Your task to perform on an android device: Show the shopping cart on newegg.com. Search for logitech g933 on newegg.com, select the first entry, add it to the cart, then select checkout. Image 0: 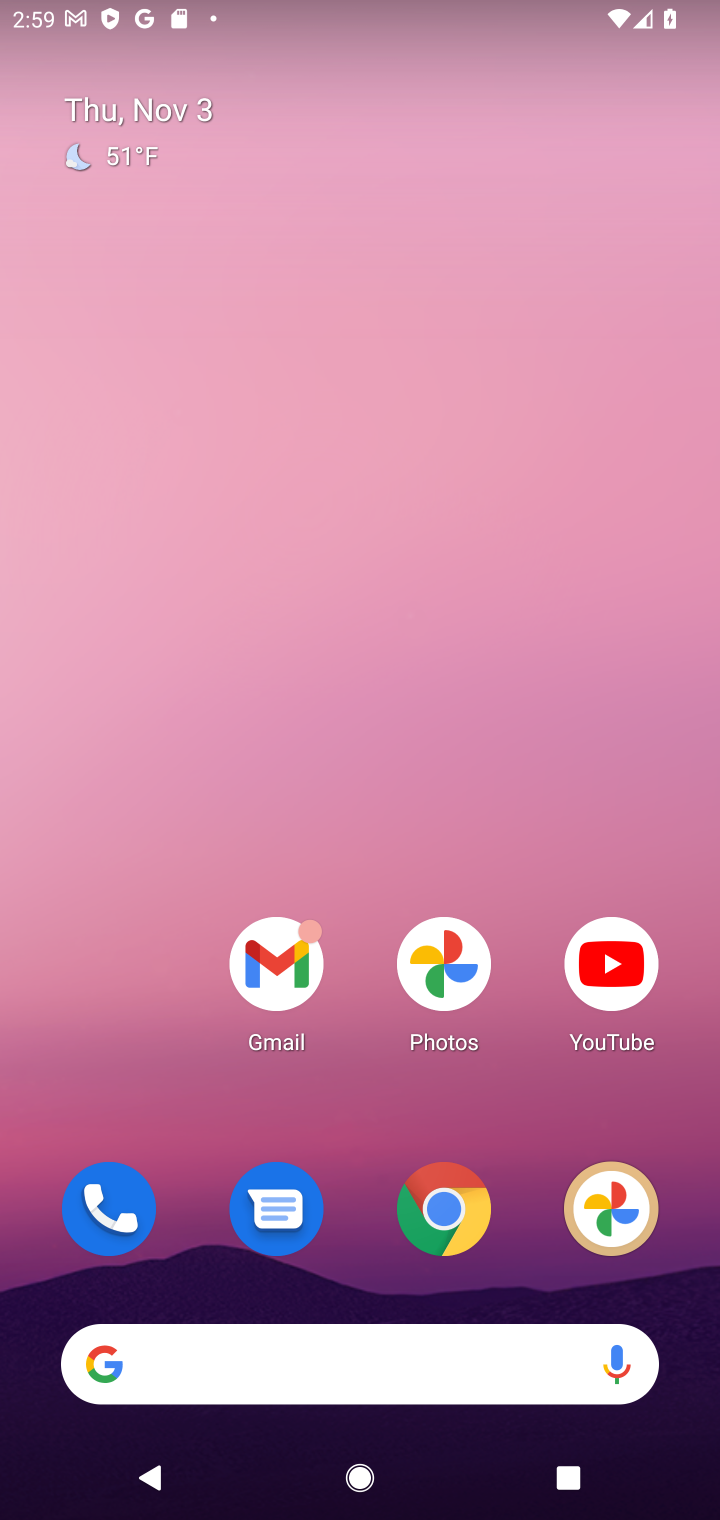
Step 0: click (476, 1190)
Your task to perform on an android device: Show the shopping cart on newegg.com. Search for logitech g933 on newegg.com, select the first entry, add it to the cart, then select checkout. Image 1: 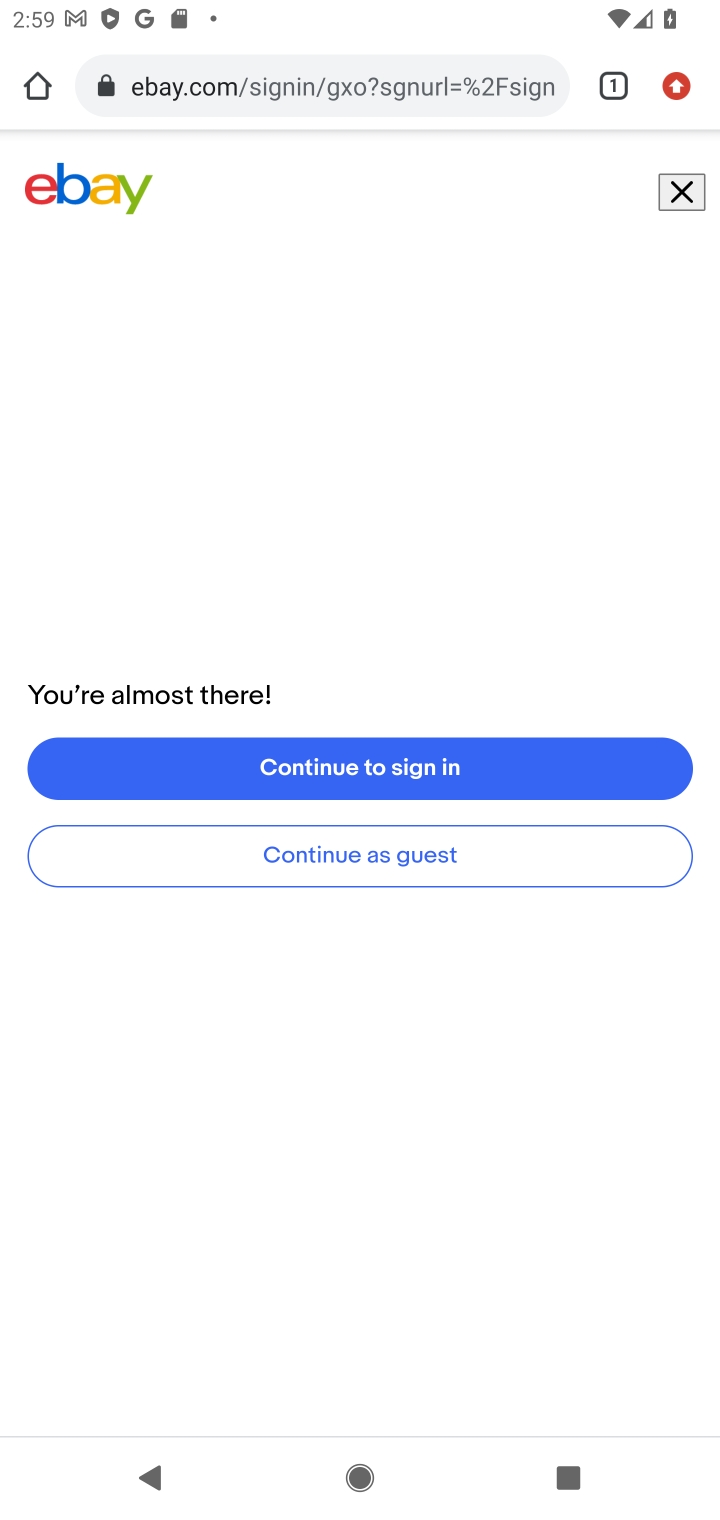
Step 1: click (288, 96)
Your task to perform on an android device: Show the shopping cart on newegg.com. Search for logitech g933 on newegg.com, select the first entry, add it to the cart, then select checkout. Image 2: 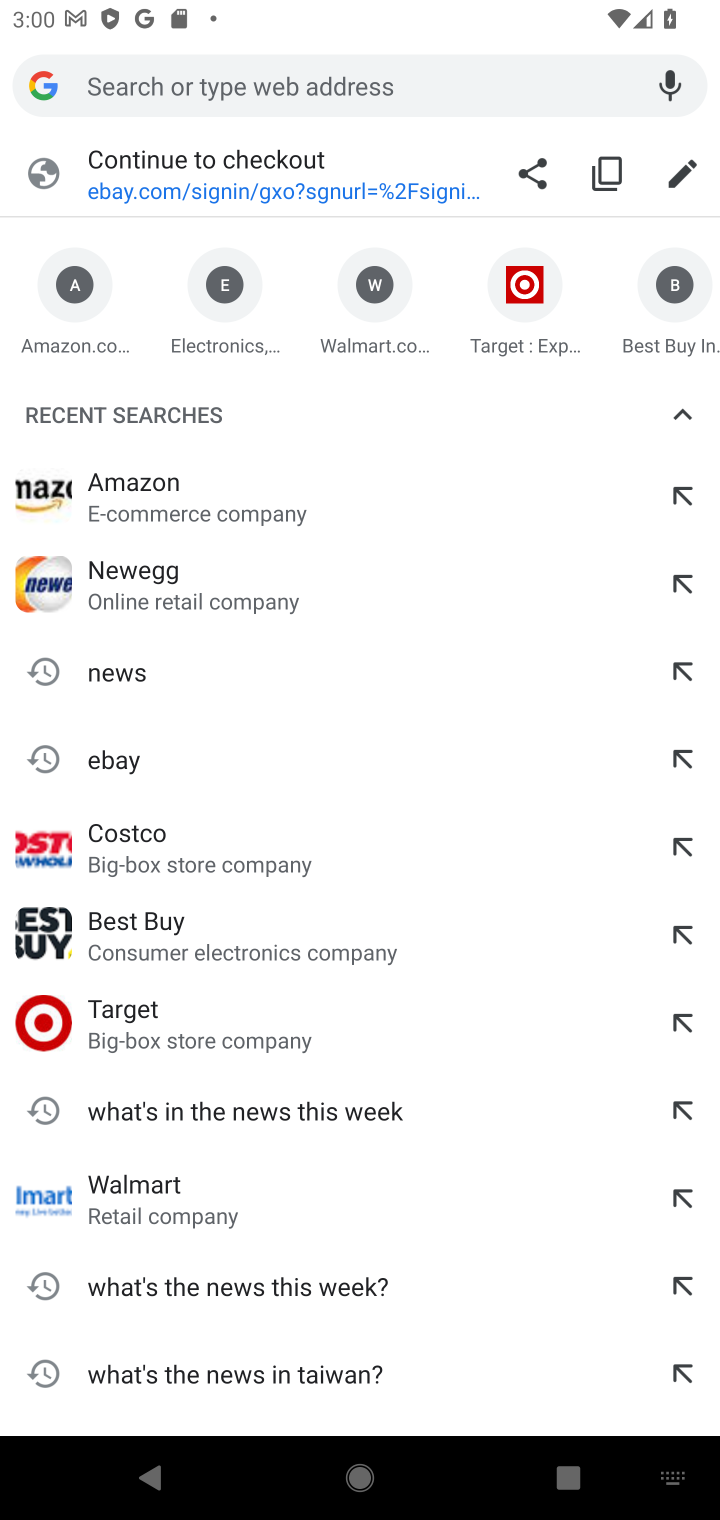
Step 2: type "newegg.com"
Your task to perform on an android device: Show the shopping cart on newegg.com. Search for logitech g933 on newegg.com, select the first entry, add it to the cart, then select checkout. Image 3: 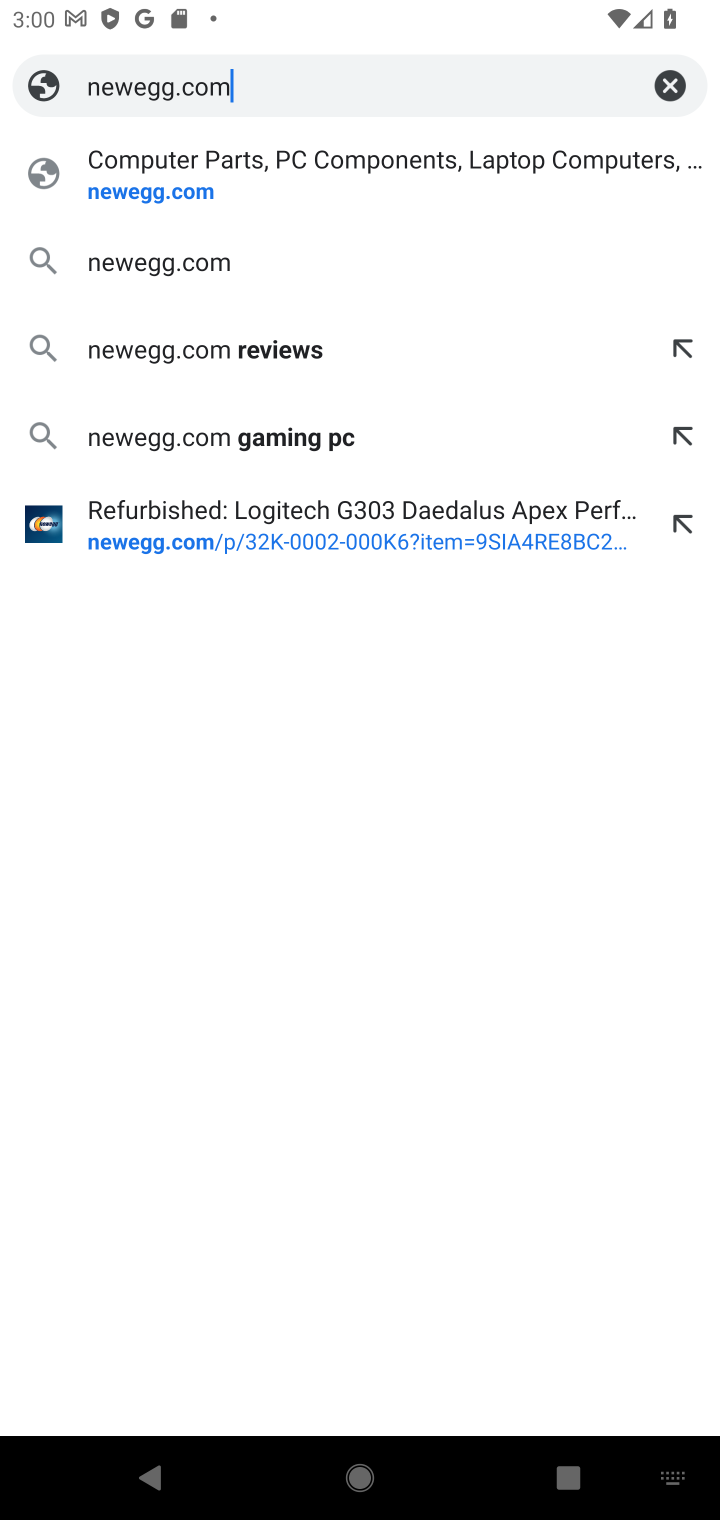
Step 3: click (216, 185)
Your task to perform on an android device: Show the shopping cart on newegg.com. Search for logitech g933 on newegg.com, select the first entry, add it to the cart, then select checkout. Image 4: 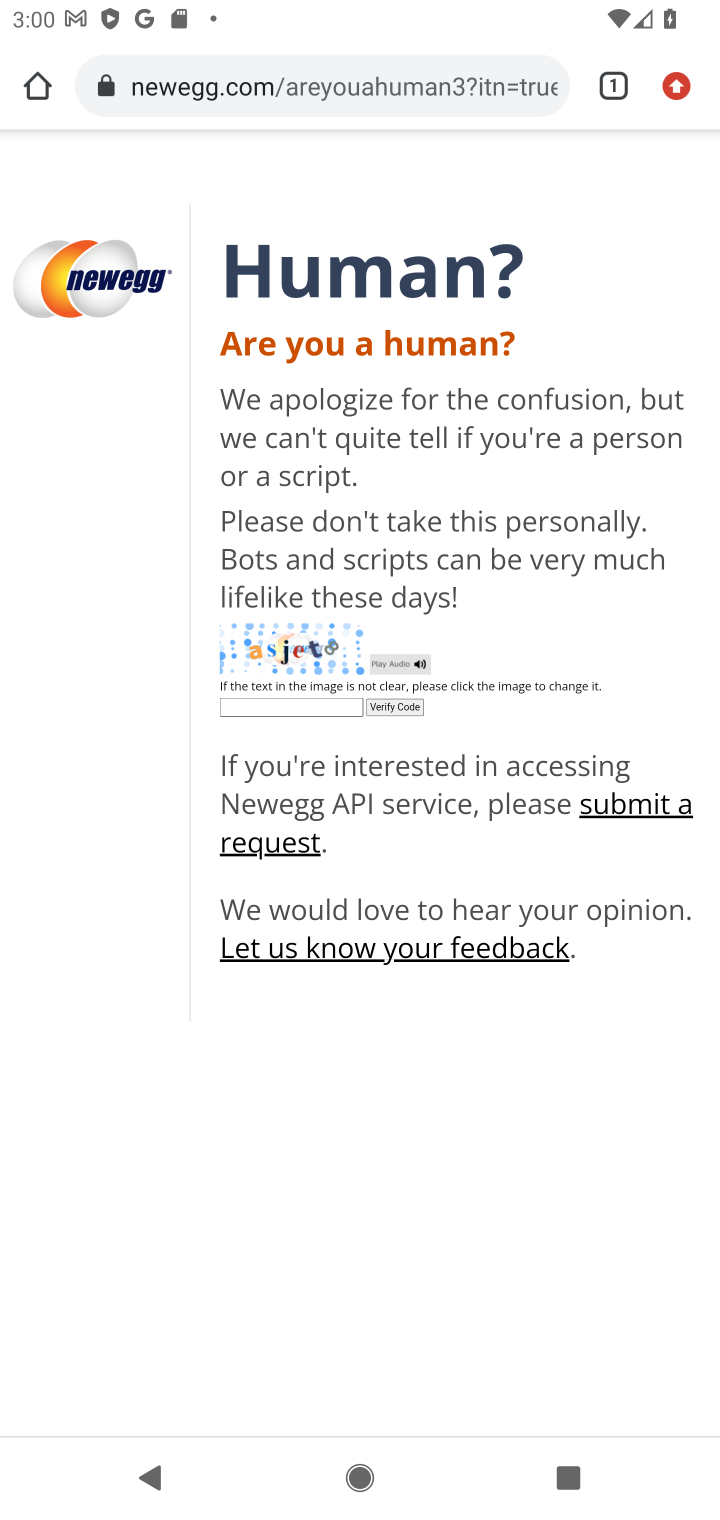
Step 4: task complete